Your task to perform on an android device: change keyboard looks Image 0: 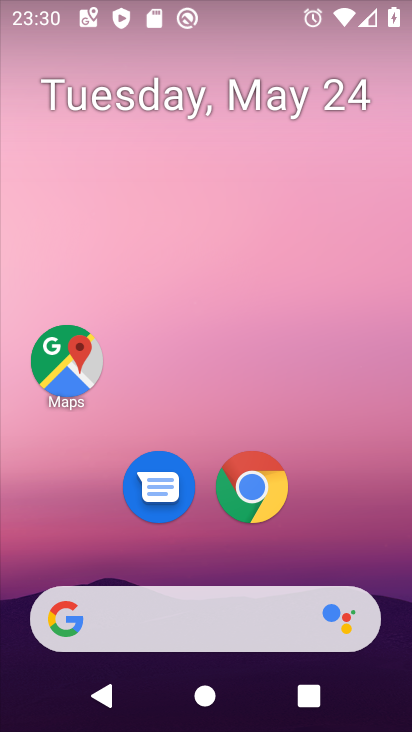
Step 0: drag from (183, 469) to (259, 145)
Your task to perform on an android device: change keyboard looks Image 1: 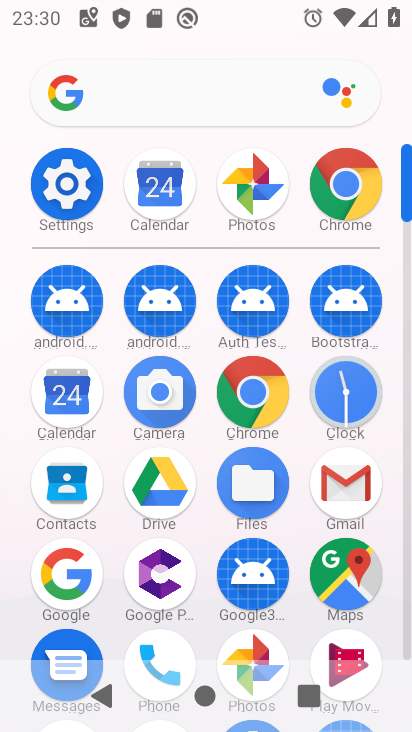
Step 1: click (65, 186)
Your task to perform on an android device: change keyboard looks Image 2: 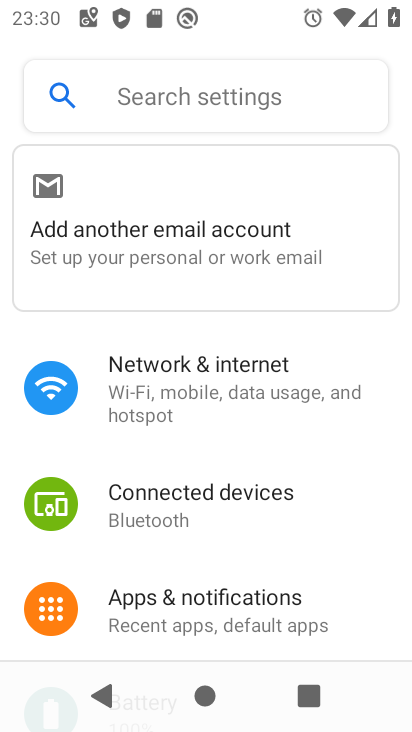
Step 2: drag from (277, 558) to (321, 70)
Your task to perform on an android device: change keyboard looks Image 3: 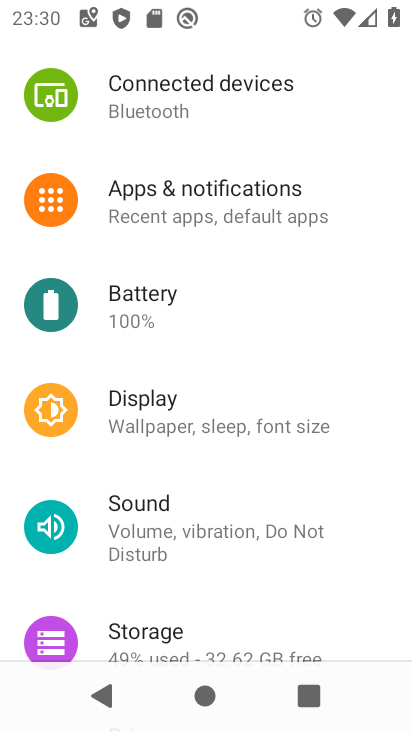
Step 3: drag from (209, 565) to (282, 77)
Your task to perform on an android device: change keyboard looks Image 4: 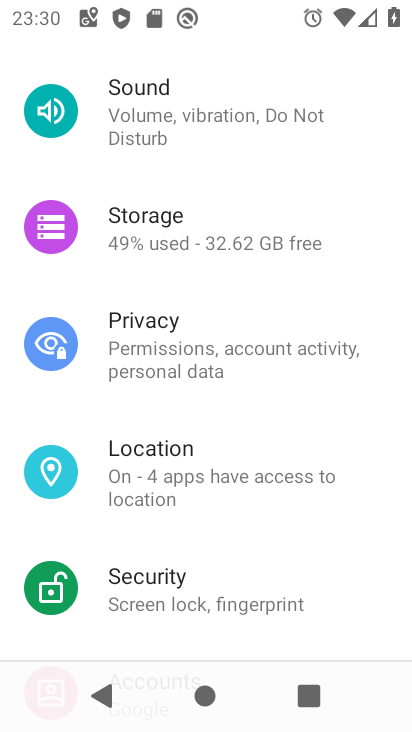
Step 4: drag from (243, 427) to (333, 33)
Your task to perform on an android device: change keyboard looks Image 5: 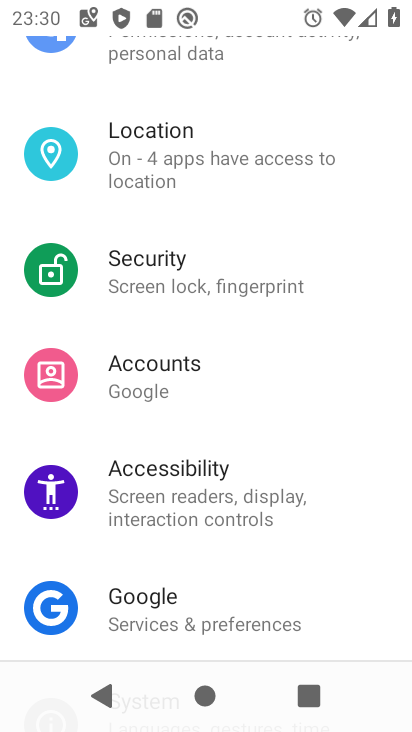
Step 5: drag from (176, 578) to (321, 36)
Your task to perform on an android device: change keyboard looks Image 6: 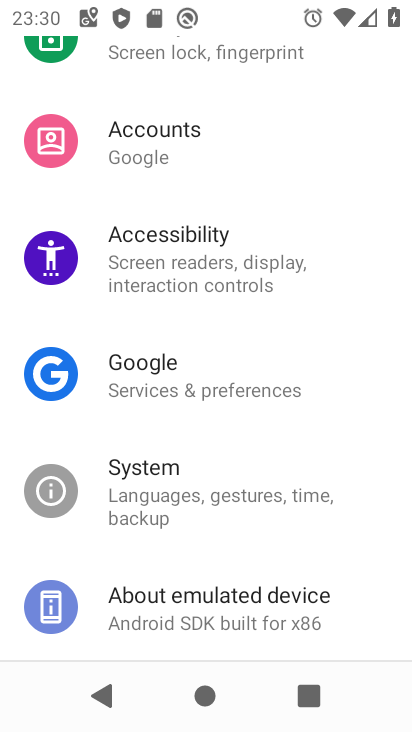
Step 6: click (151, 499)
Your task to perform on an android device: change keyboard looks Image 7: 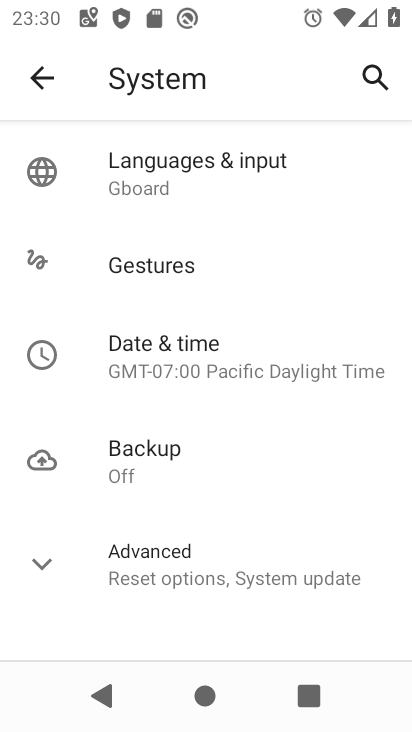
Step 7: click (136, 169)
Your task to perform on an android device: change keyboard looks Image 8: 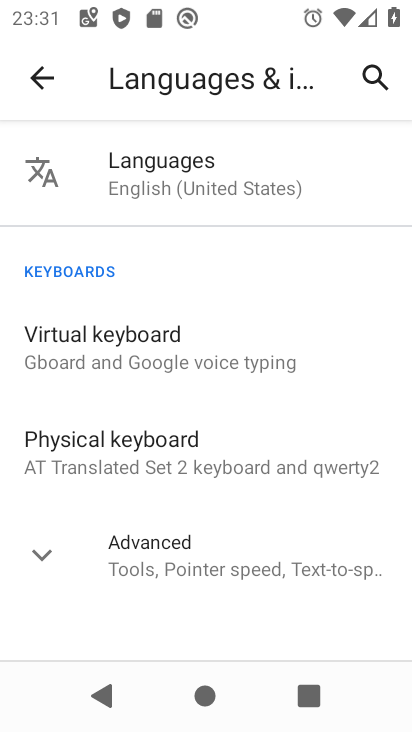
Step 8: click (102, 348)
Your task to perform on an android device: change keyboard looks Image 9: 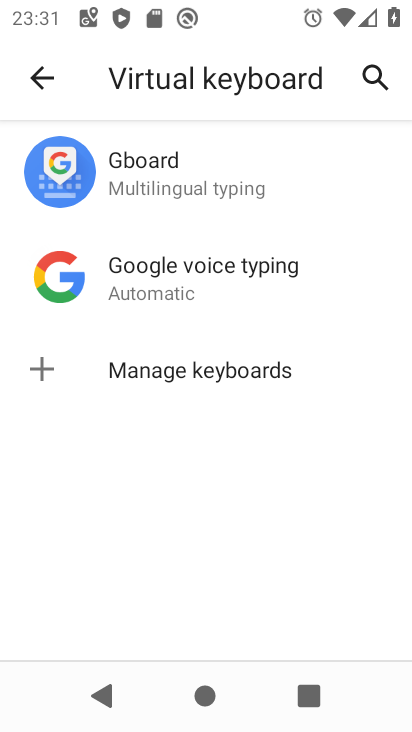
Step 9: click (130, 156)
Your task to perform on an android device: change keyboard looks Image 10: 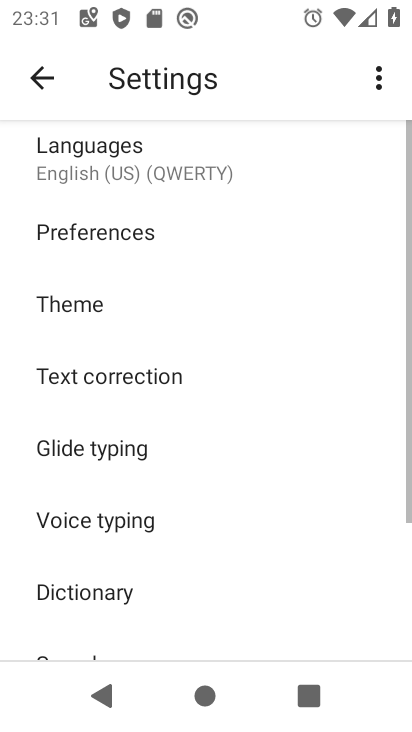
Step 10: click (78, 326)
Your task to perform on an android device: change keyboard looks Image 11: 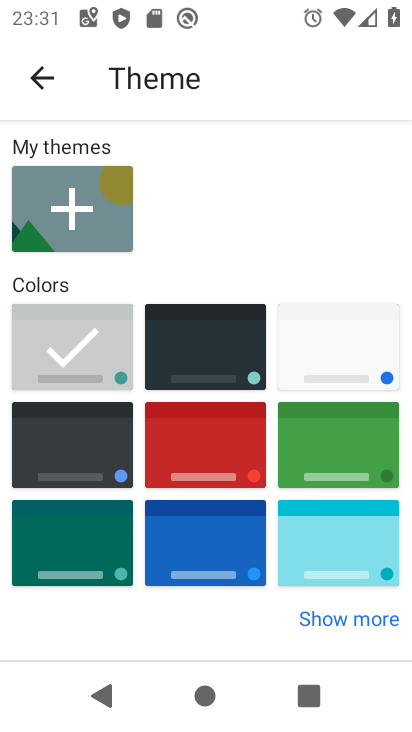
Step 11: click (329, 453)
Your task to perform on an android device: change keyboard looks Image 12: 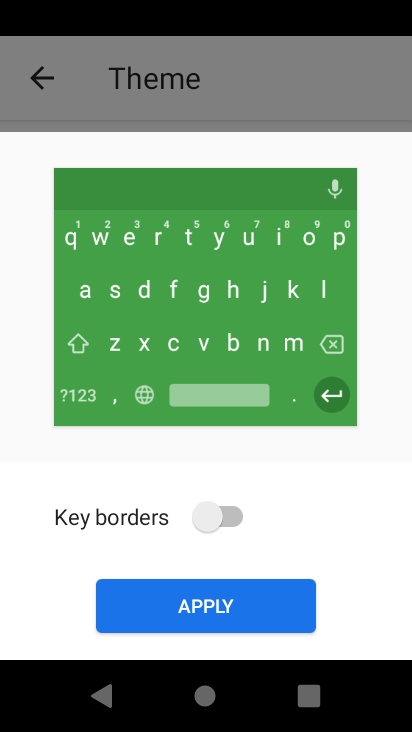
Step 12: click (229, 607)
Your task to perform on an android device: change keyboard looks Image 13: 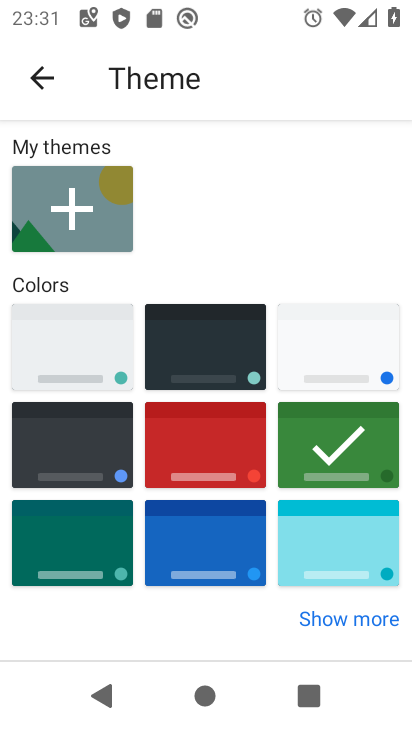
Step 13: task complete